Your task to perform on an android device: turn notification dots off Image 0: 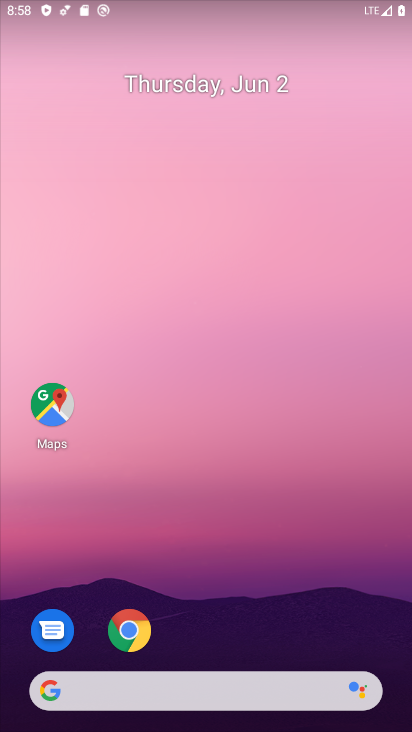
Step 0: drag from (227, 625) to (237, 34)
Your task to perform on an android device: turn notification dots off Image 1: 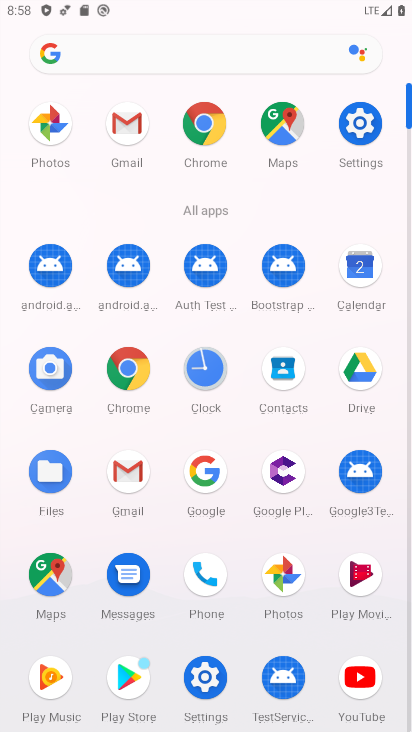
Step 1: click (359, 124)
Your task to perform on an android device: turn notification dots off Image 2: 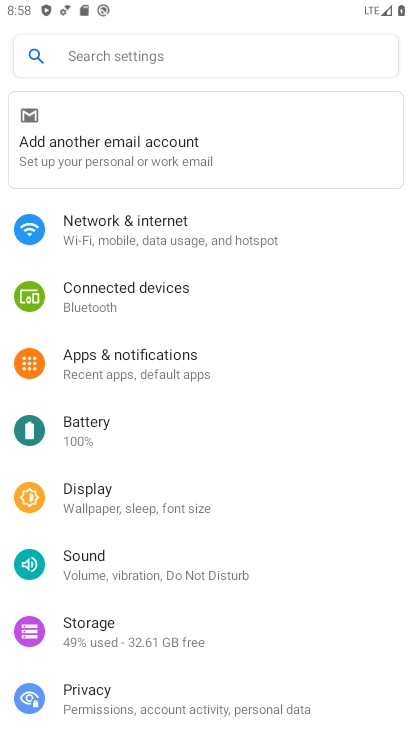
Step 2: click (117, 365)
Your task to perform on an android device: turn notification dots off Image 3: 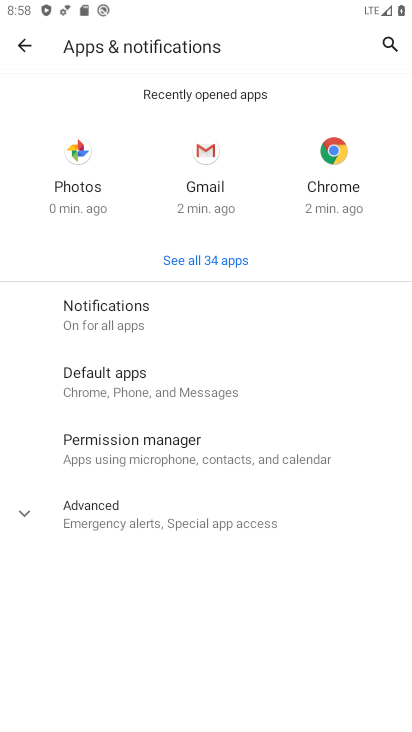
Step 3: click (126, 316)
Your task to perform on an android device: turn notification dots off Image 4: 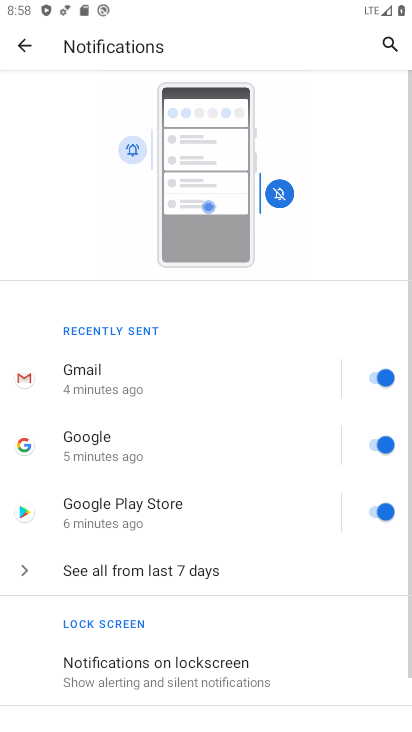
Step 4: drag from (188, 564) to (280, 127)
Your task to perform on an android device: turn notification dots off Image 5: 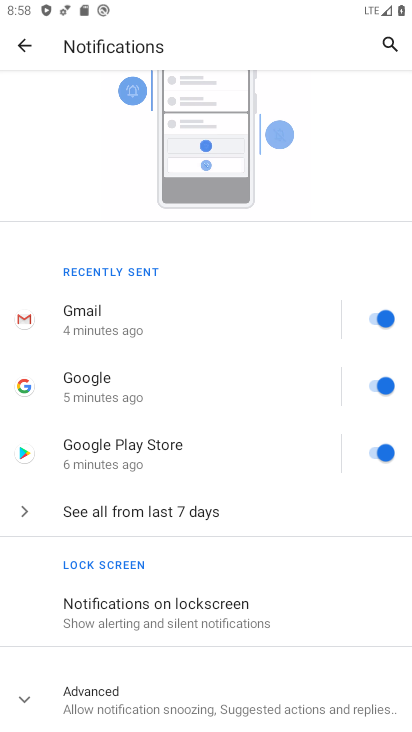
Step 5: click (120, 685)
Your task to perform on an android device: turn notification dots off Image 6: 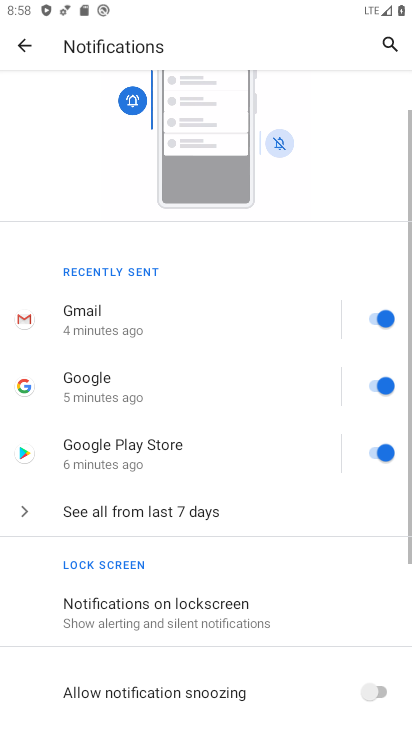
Step 6: drag from (232, 640) to (252, 153)
Your task to perform on an android device: turn notification dots off Image 7: 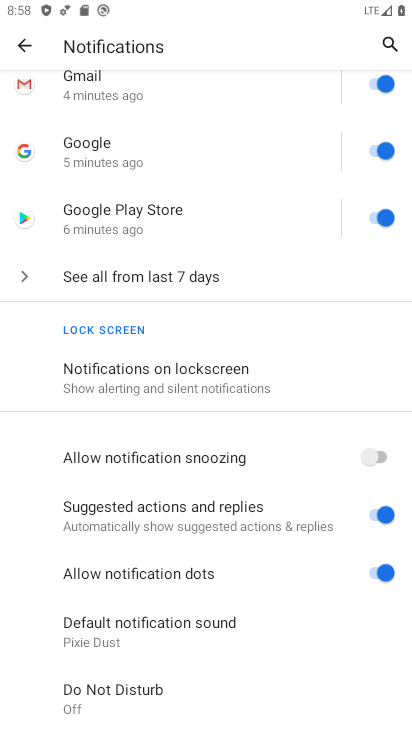
Step 7: click (381, 572)
Your task to perform on an android device: turn notification dots off Image 8: 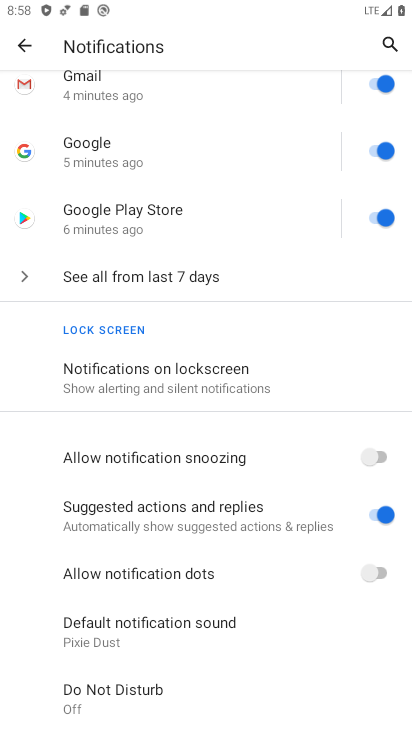
Step 8: task complete